Your task to perform on an android device: Go to Wikipedia Image 0: 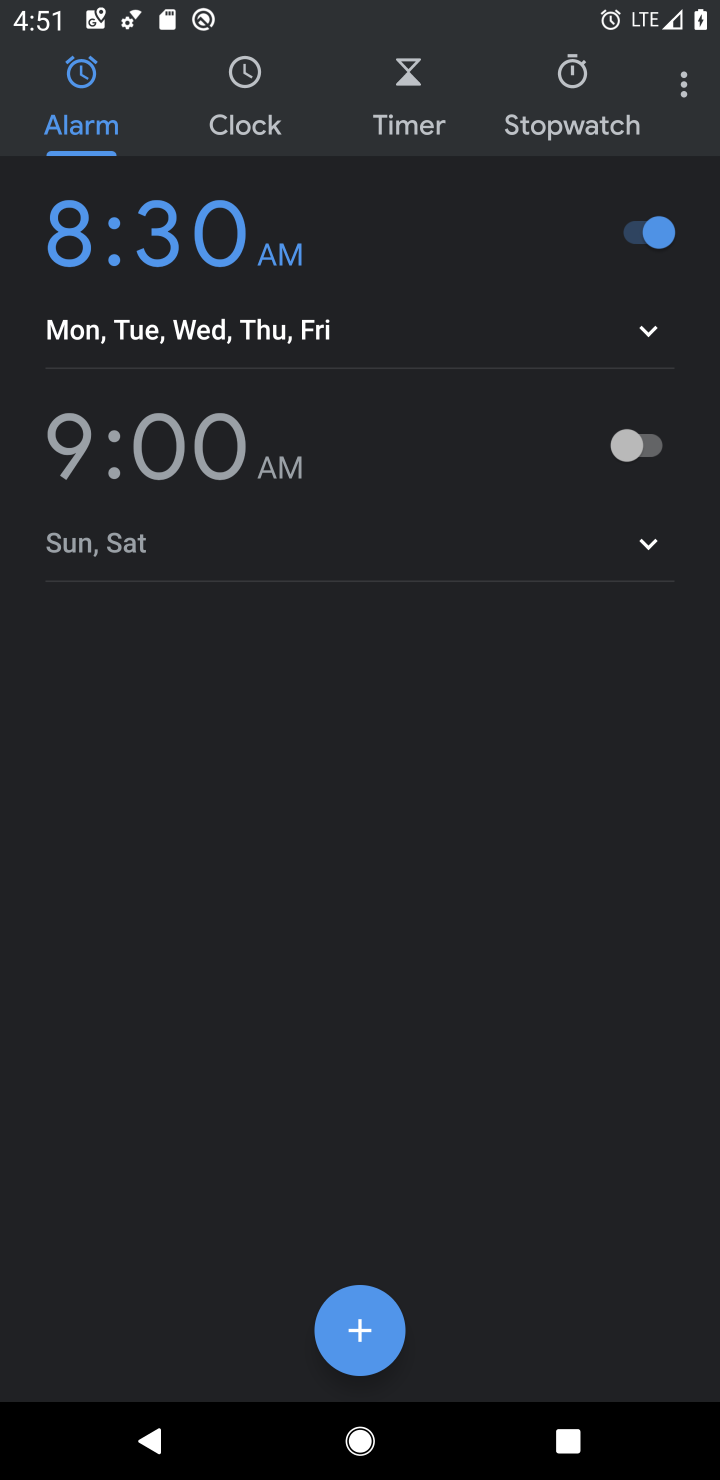
Step 0: press home button
Your task to perform on an android device: Go to Wikipedia Image 1: 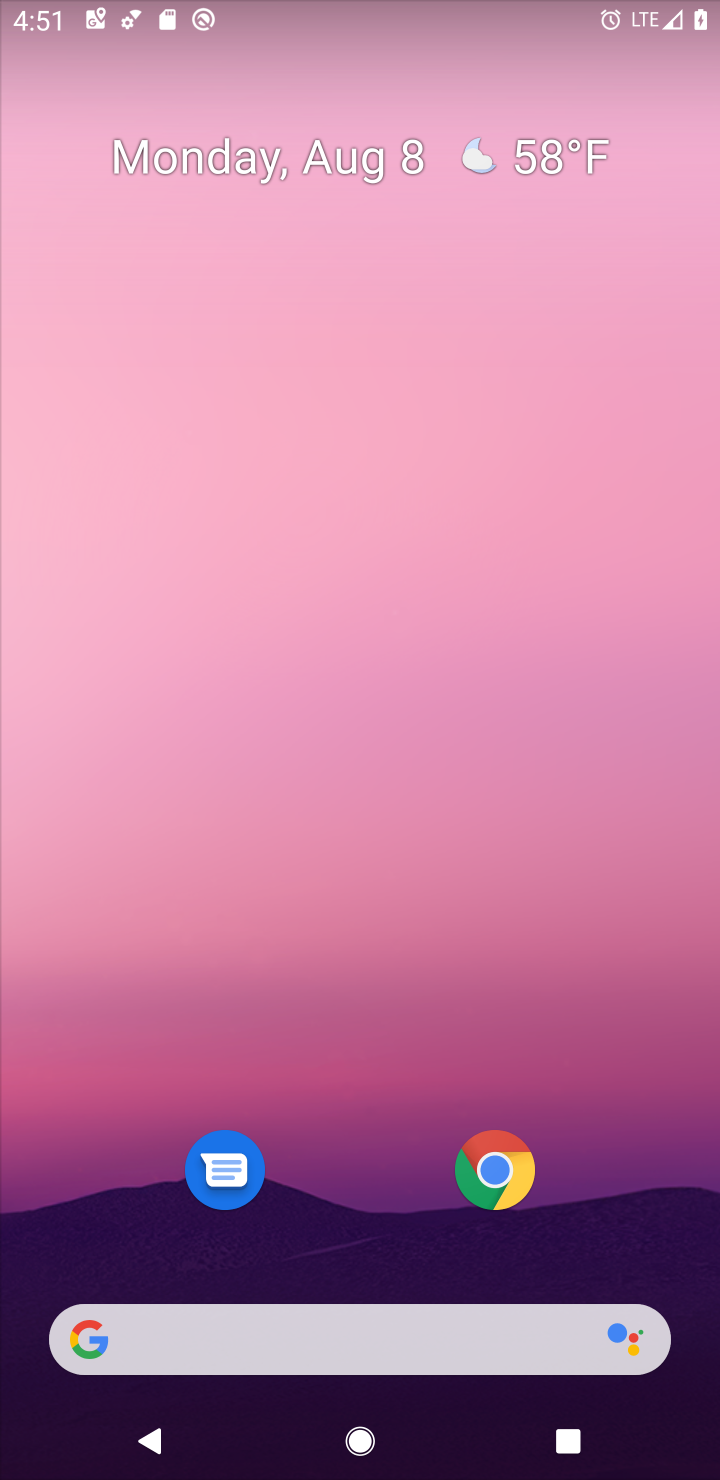
Step 1: click (485, 1217)
Your task to perform on an android device: Go to Wikipedia Image 2: 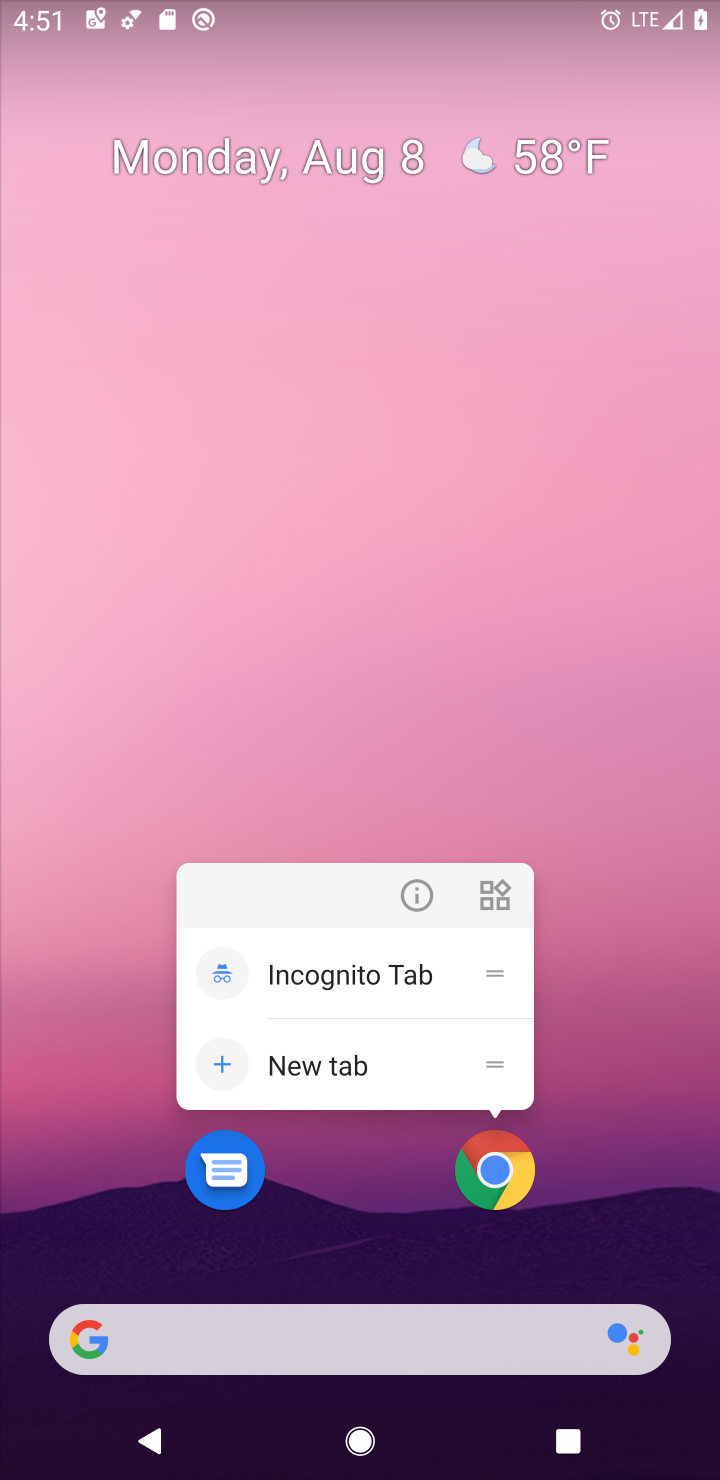
Step 2: click (485, 1217)
Your task to perform on an android device: Go to Wikipedia Image 3: 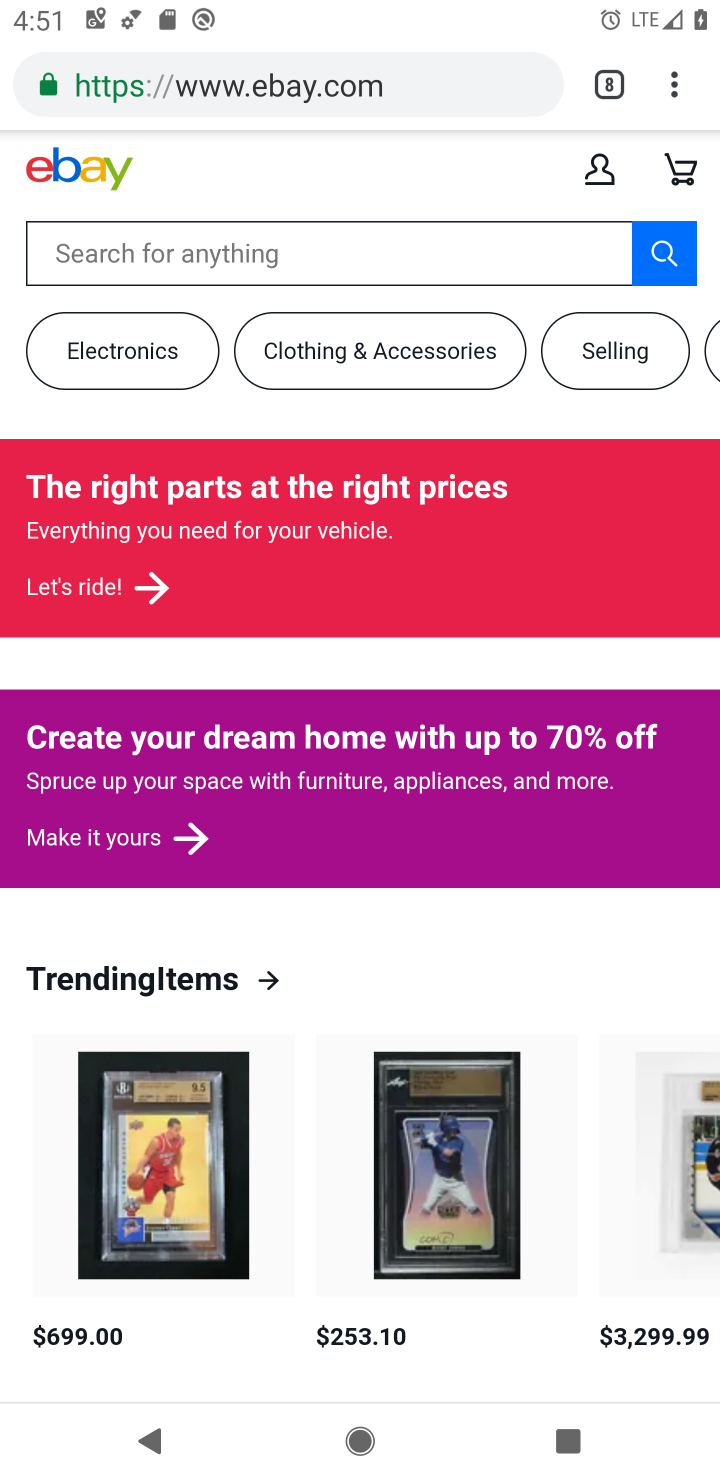
Step 3: click (622, 85)
Your task to perform on an android device: Go to Wikipedia Image 4: 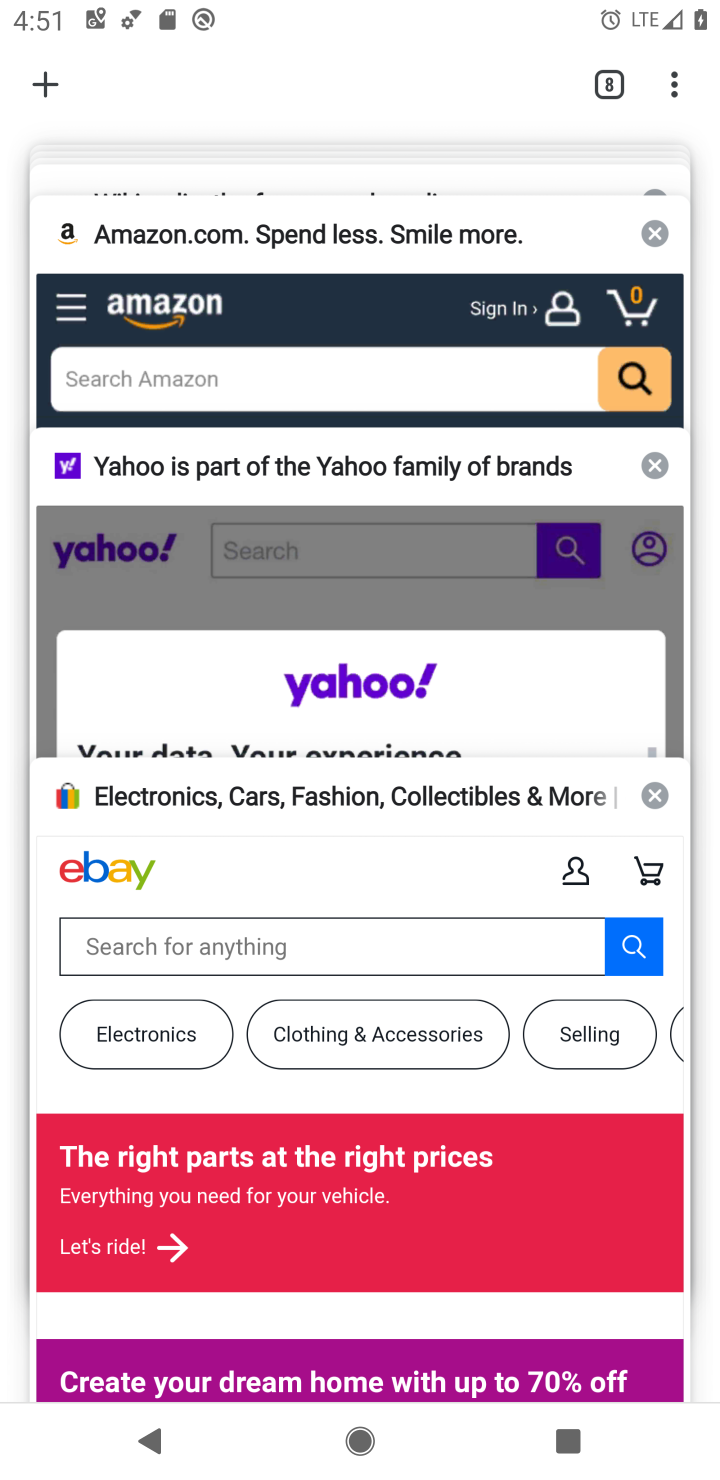
Step 4: click (44, 86)
Your task to perform on an android device: Go to Wikipedia Image 5: 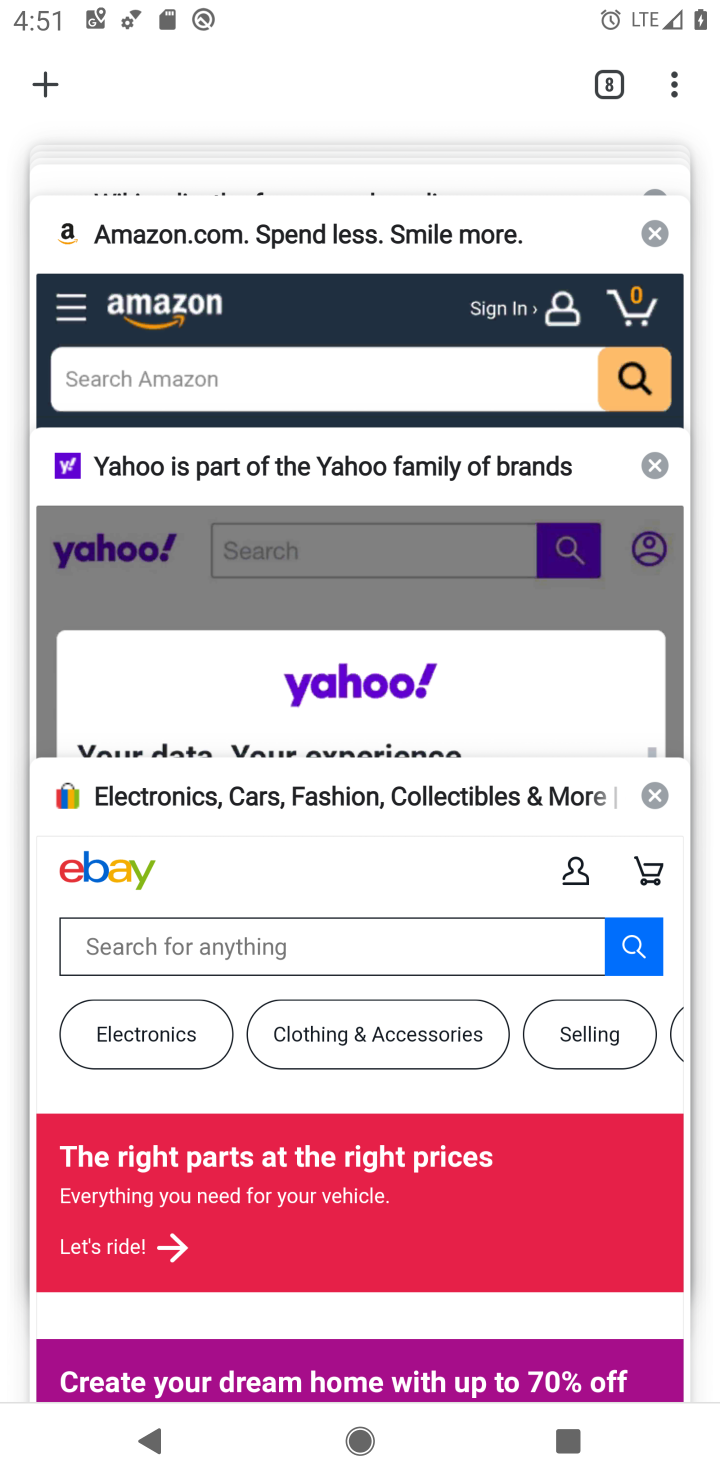
Step 5: click (49, 86)
Your task to perform on an android device: Go to Wikipedia Image 6: 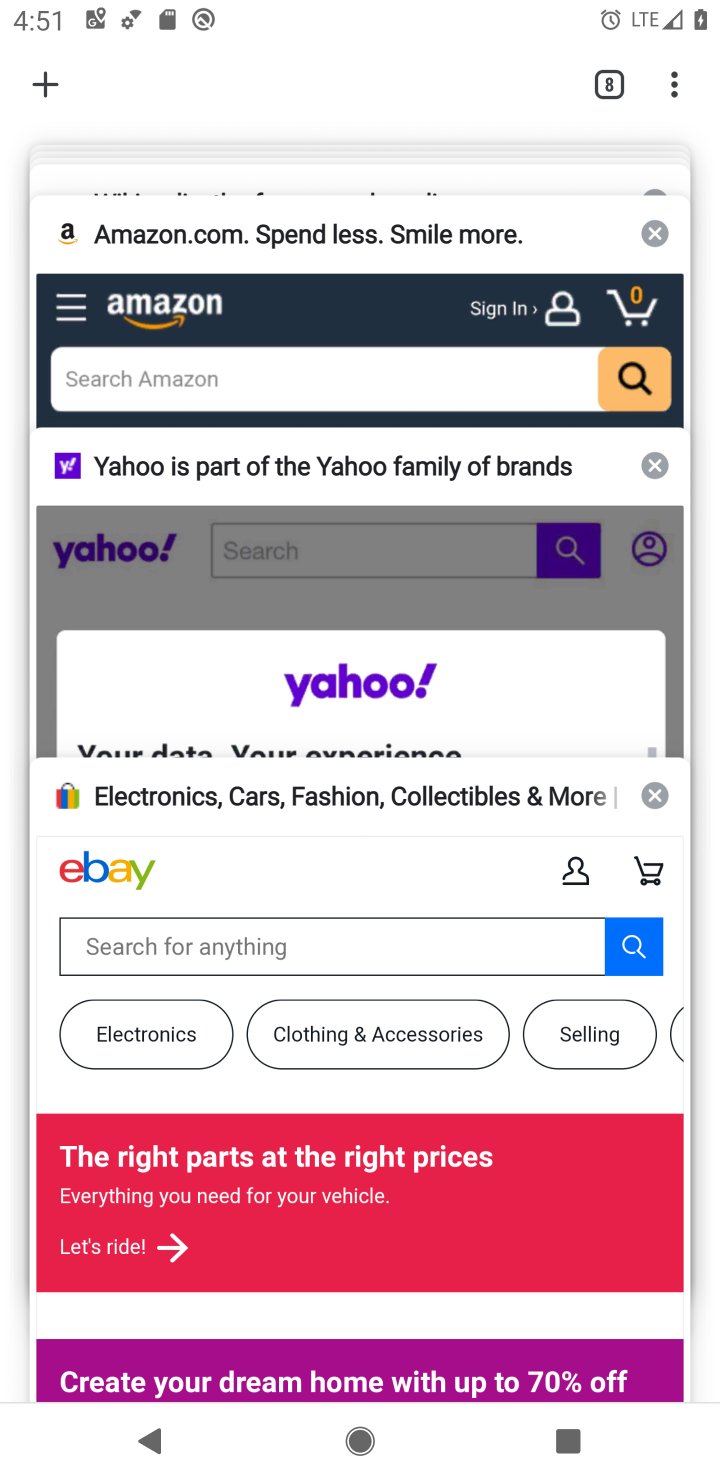
Step 6: click (34, 91)
Your task to perform on an android device: Go to Wikipedia Image 7: 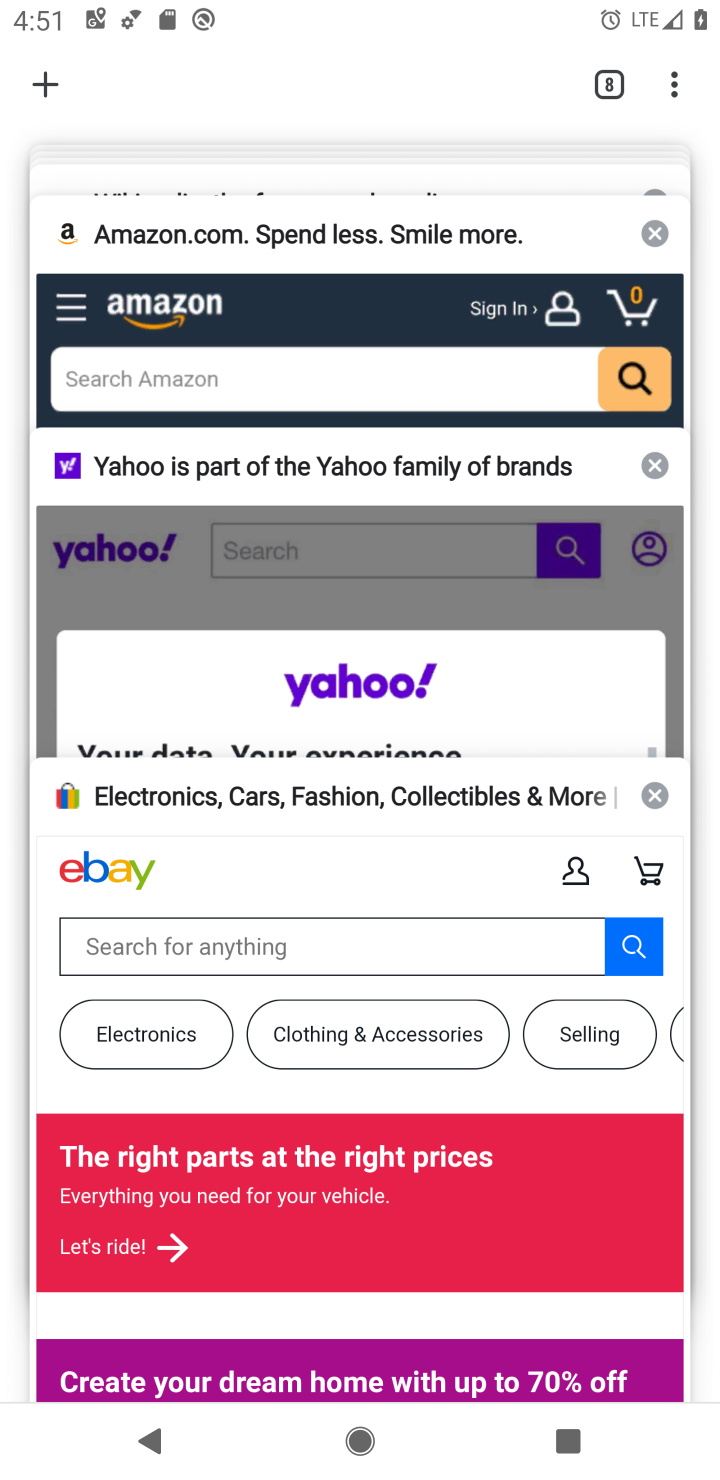
Step 7: click (47, 90)
Your task to perform on an android device: Go to Wikipedia Image 8: 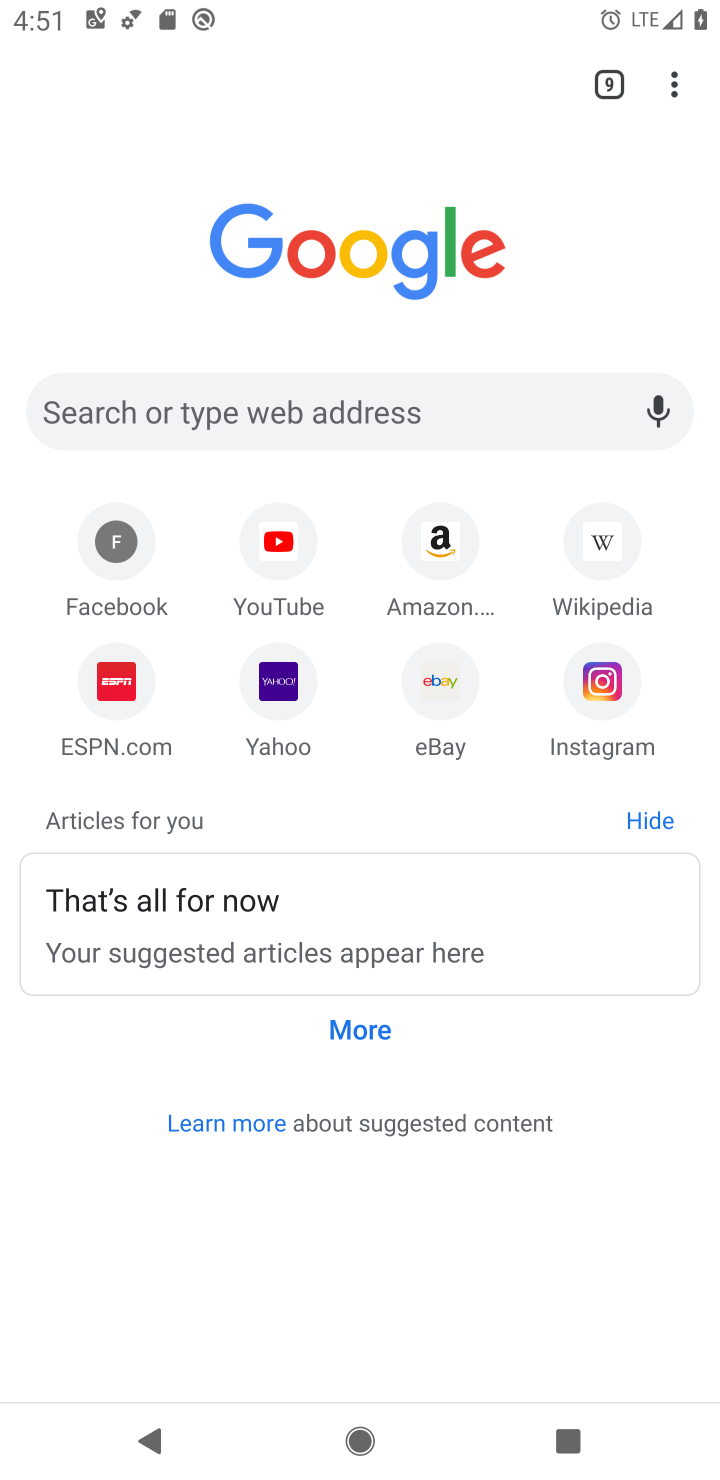
Step 8: click (597, 570)
Your task to perform on an android device: Go to Wikipedia Image 9: 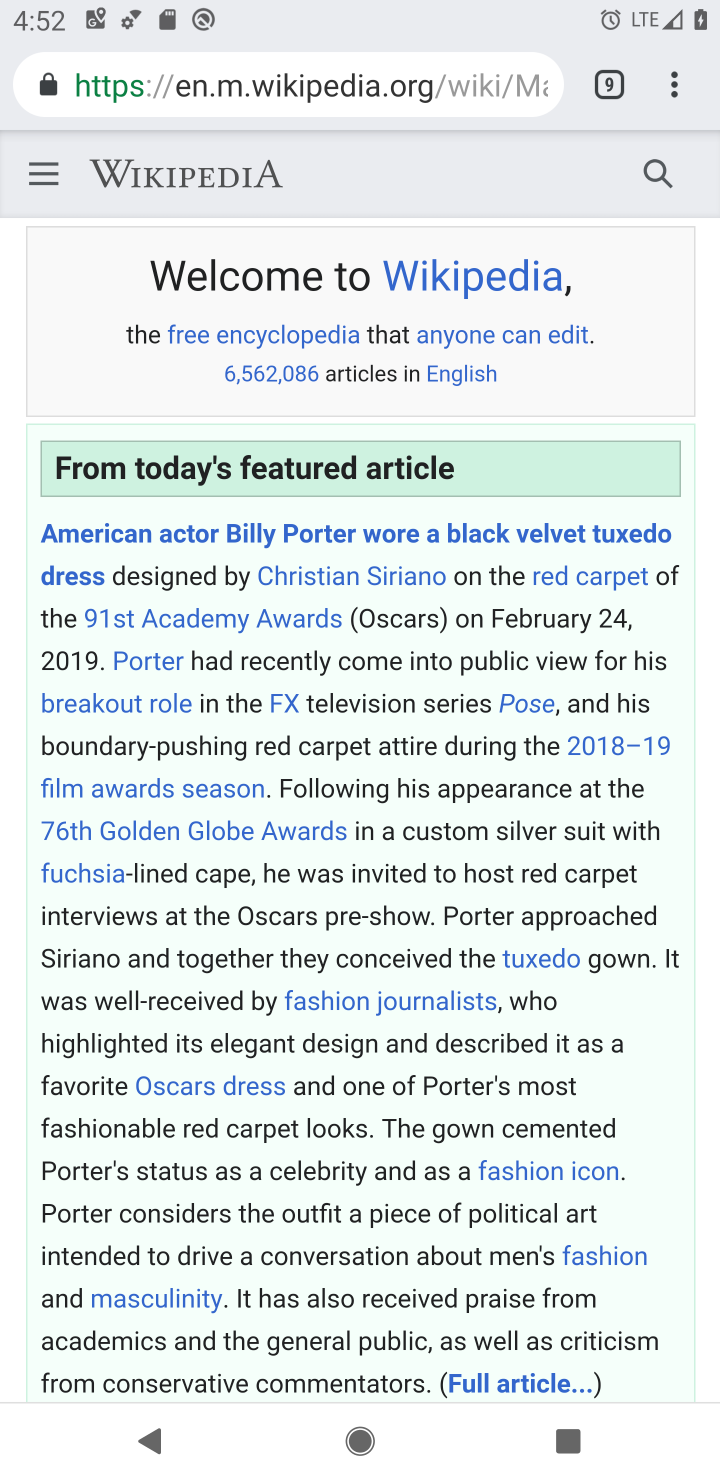
Step 9: task complete